Your task to perform on an android device: Open Chrome and go to settings Image 0: 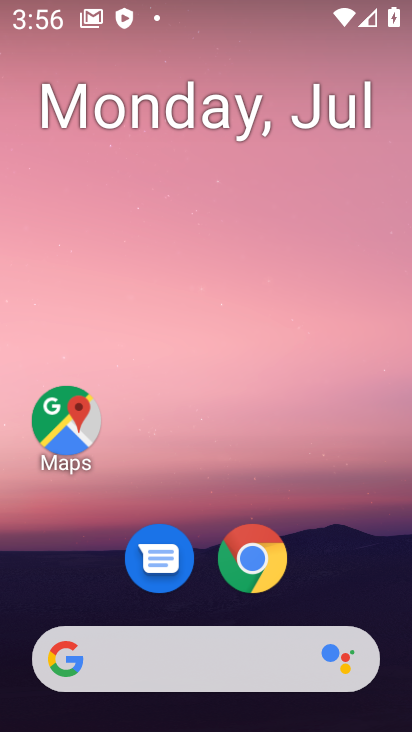
Step 0: drag from (123, 582) to (140, 129)
Your task to perform on an android device: Open Chrome and go to settings Image 1: 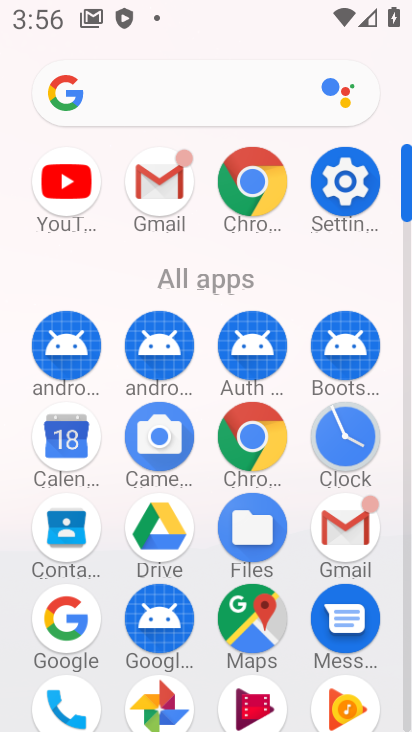
Step 1: click (358, 180)
Your task to perform on an android device: Open Chrome and go to settings Image 2: 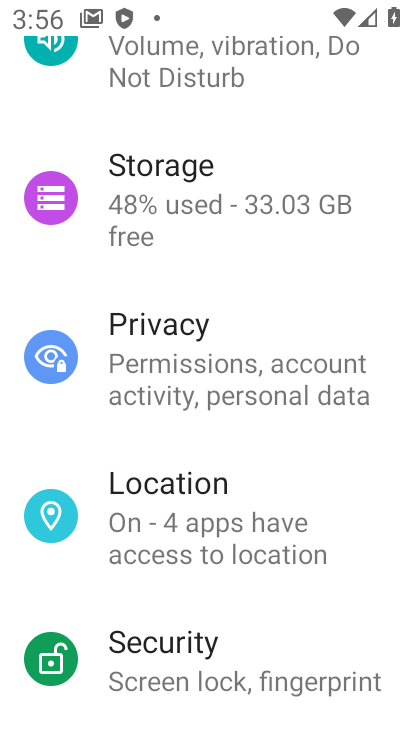
Step 2: press back button
Your task to perform on an android device: Open Chrome and go to settings Image 3: 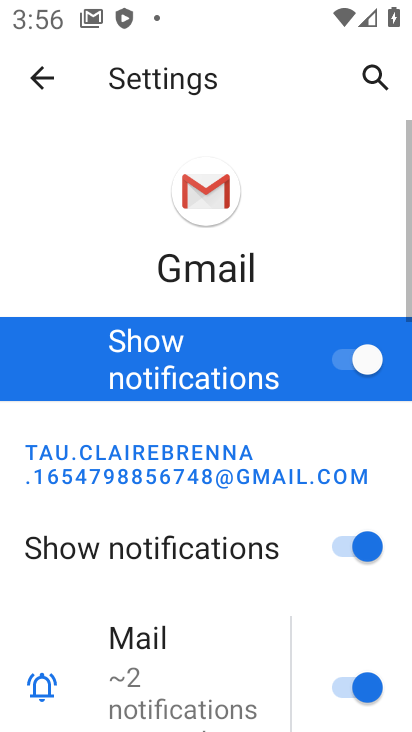
Step 3: press back button
Your task to perform on an android device: Open Chrome and go to settings Image 4: 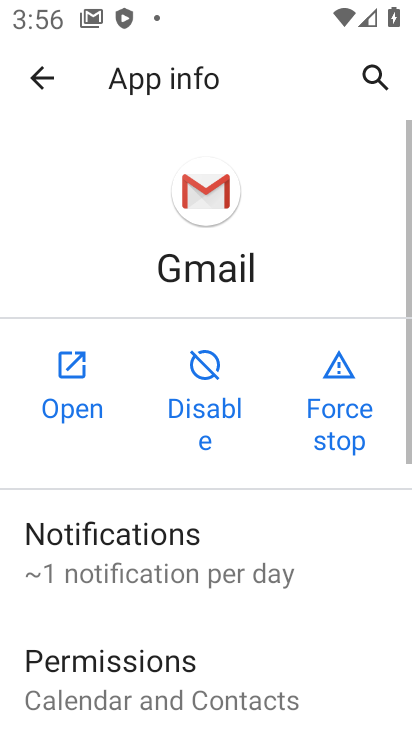
Step 4: press back button
Your task to perform on an android device: Open Chrome and go to settings Image 5: 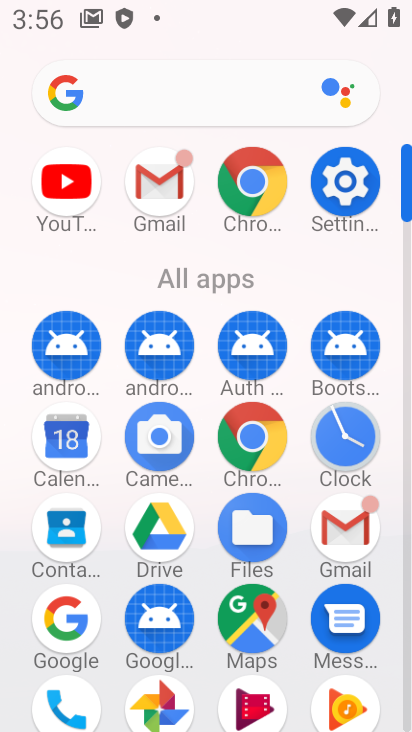
Step 5: click (265, 195)
Your task to perform on an android device: Open Chrome and go to settings Image 6: 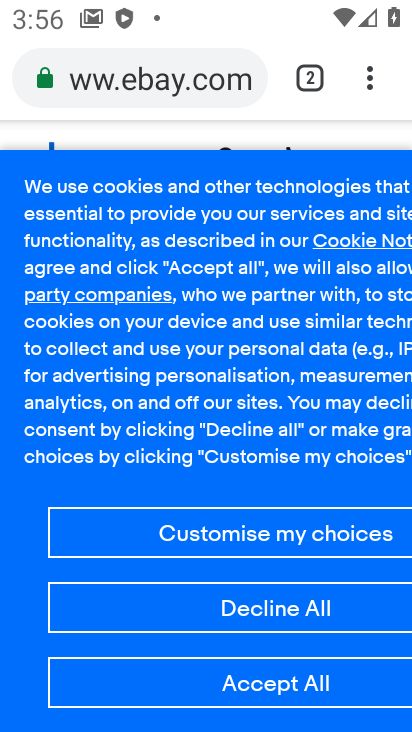
Step 6: task complete